Your task to perform on an android device: open a new tab in the chrome app Image 0: 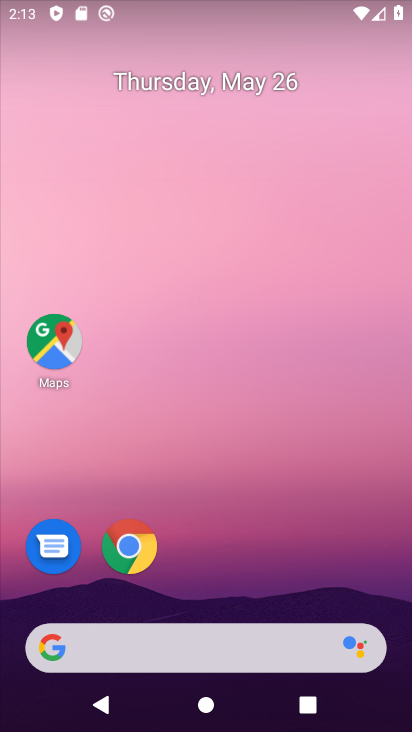
Step 0: click (122, 539)
Your task to perform on an android device: open a new tab in the chrome app Image 1: 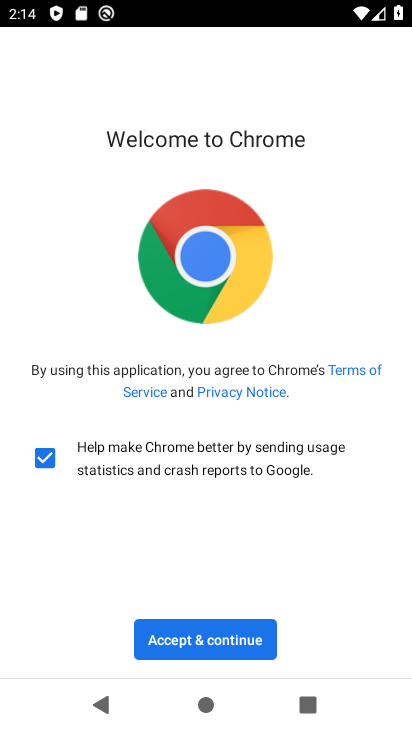
Step 1: click (214, 636)
Your task to perform on an android device: open a new tab in the chrome app Image 2: 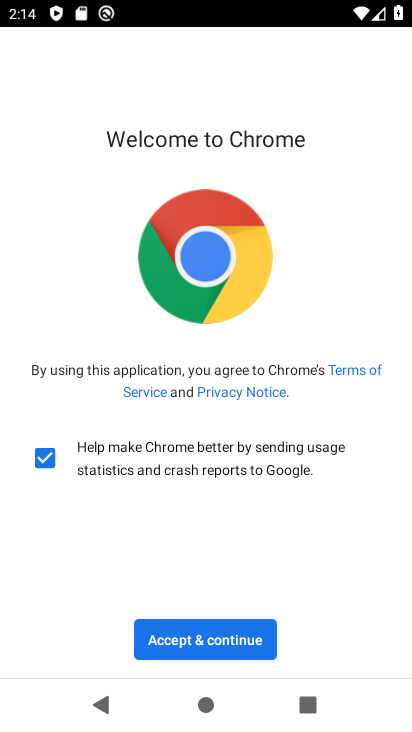
Step 2: click (214, 636)
Your task to perform on an android device: open a new tab in the chrome app Image 3: 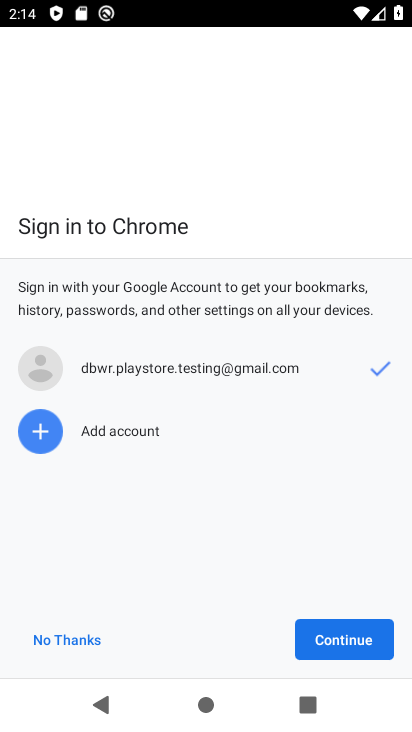
Step 3: click (358, 646)
Your task to perform on an android device: open a new tab in the chrome app Image 4: 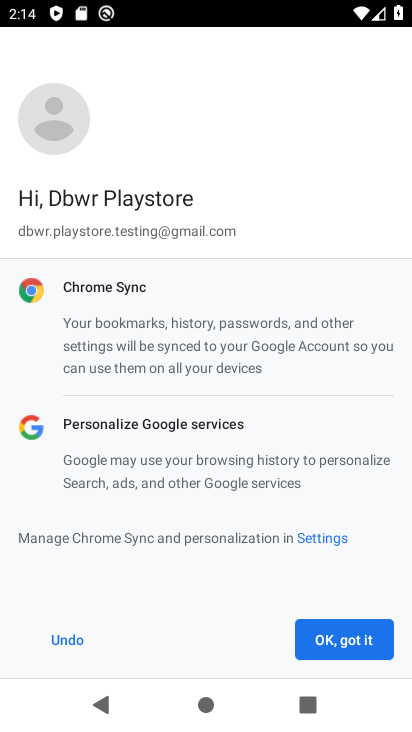
Step 4: click (358, 644)
Your task to perform on an android device: open a new tab in the chrome app Image 5: 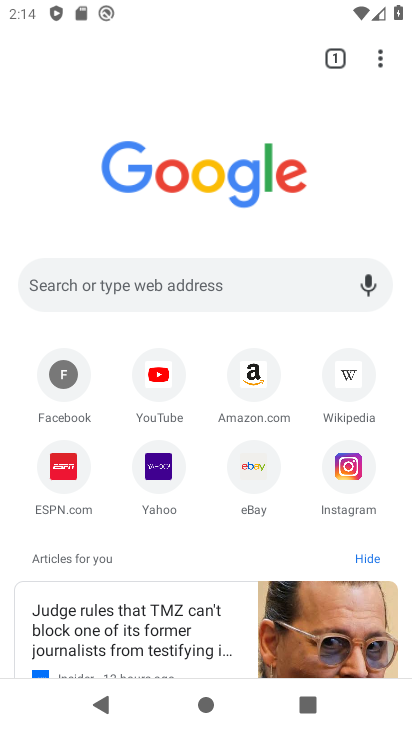
Step 5: click (373, 55)
Your task to perform on an android device: open a new tab in the chrome app Image 6: 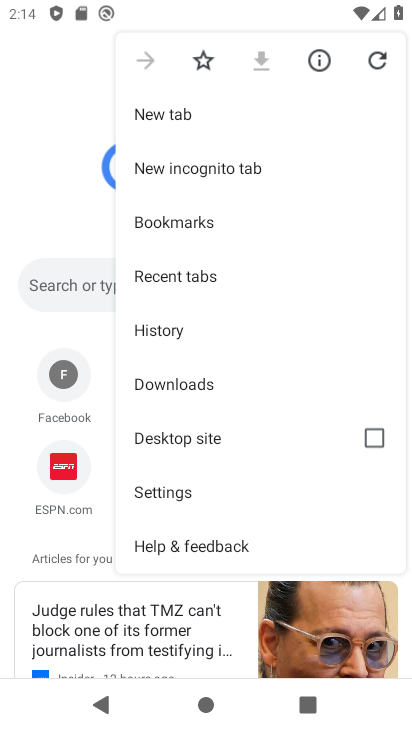
Step 6: click (154, 112)
Your task to perform on an android device: open a new tab in the chrome app Image 7: 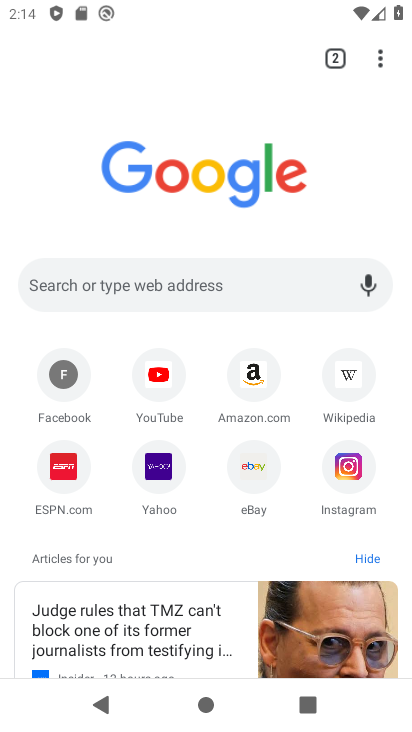
Step 7: task complete